Your task to perform on an android device: make emails show in primary in the gmail app Image 0: 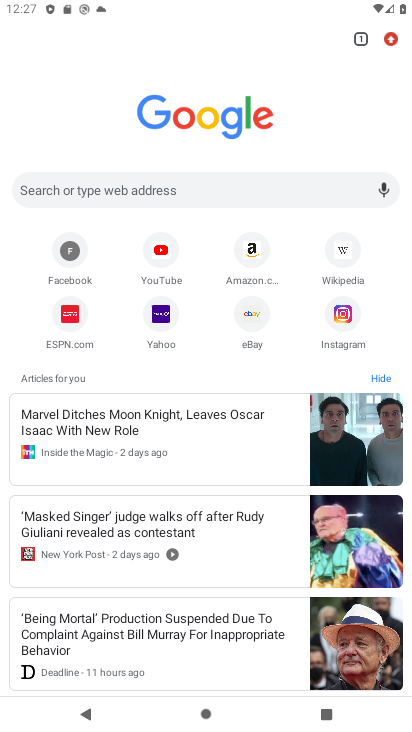
Step 0: press home button
Your task to perform on an android device: make emails show in primary in the gmail app Image 1: 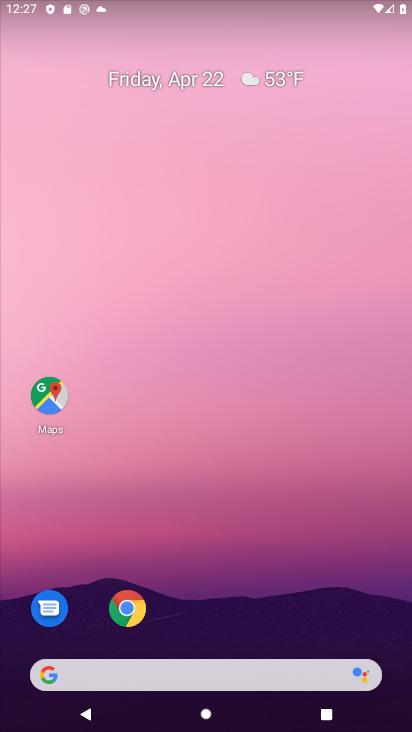
Step 1: drag from (293, 586) to (225, 123)
Your task to perform on an android device: make emails show in primary in the gmail app Image 2: 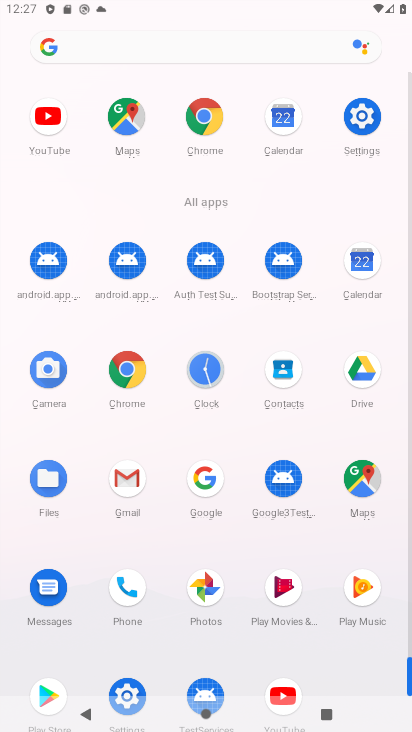
Step 2: click (128, 475)
Your task to perform on an android device: make emails show in primary in the gmail app Image 3: 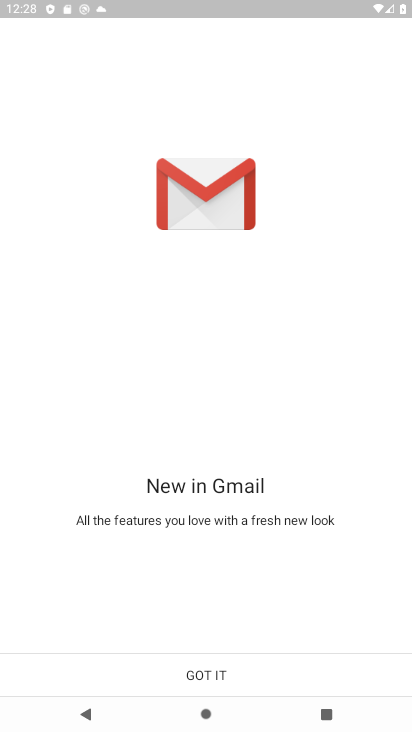
Step 3: click (224, 667)
Your task to perform on an android device: make emails show in primary in the gmail app Image 4: 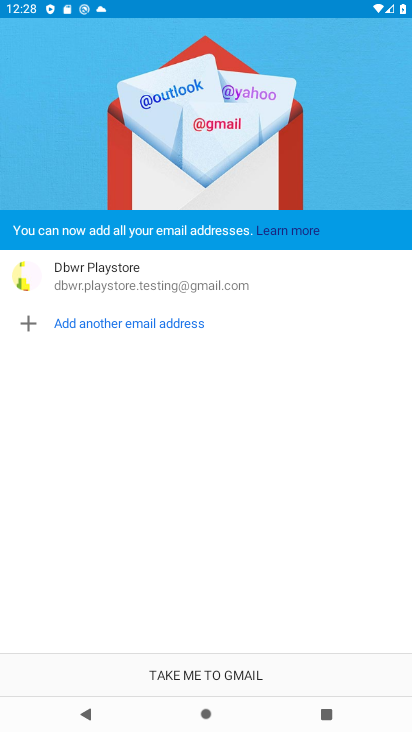
Step 4: click (227, 669)
Your task to perform on an android device: make emails show in primary in the gmail app Image 5: 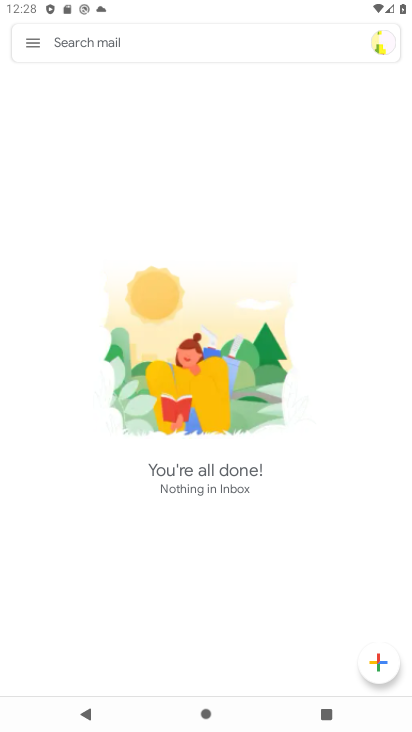
Step 5: click (37, 40)
Your task to perform on an android device: make emails show in primary in the gmail app Image 6: 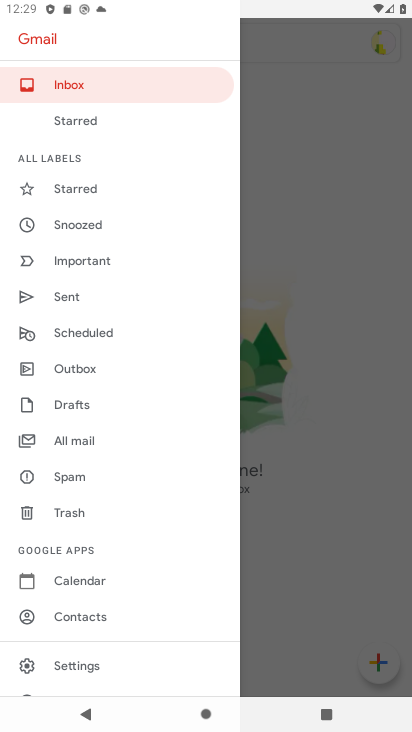
Step 6: click (78, 661)
Your task to perform on an android device: make emails show in primary in the gmail app Image 7: 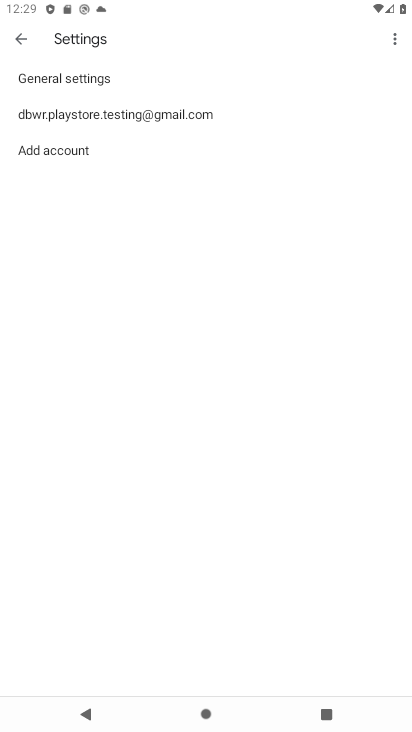
Step 7: click (83, 108)
Your task to perform on an android device: make emails show in primary in the gmail app Image 8: 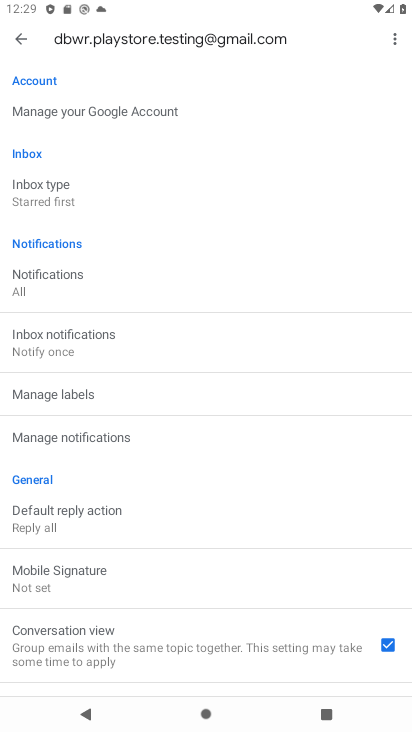
Step 8: click (55, 182)
Your task to perform on an android device: make emails show in primary in the gmail app Image 9: 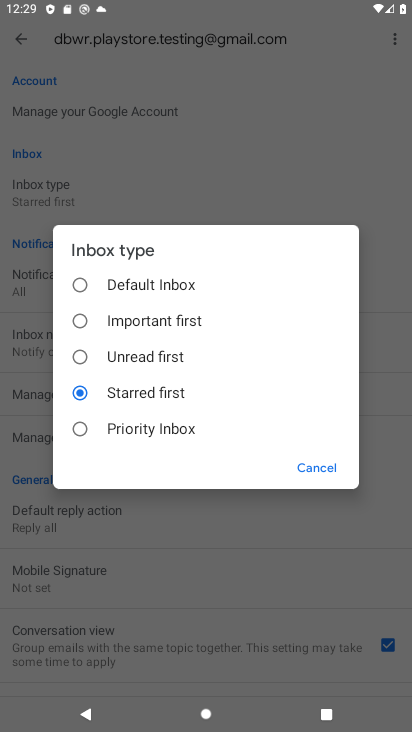
Step 9: click (124, 291)
Your task to perform on an android device: make emails show in primary in the gmail app Image 10: 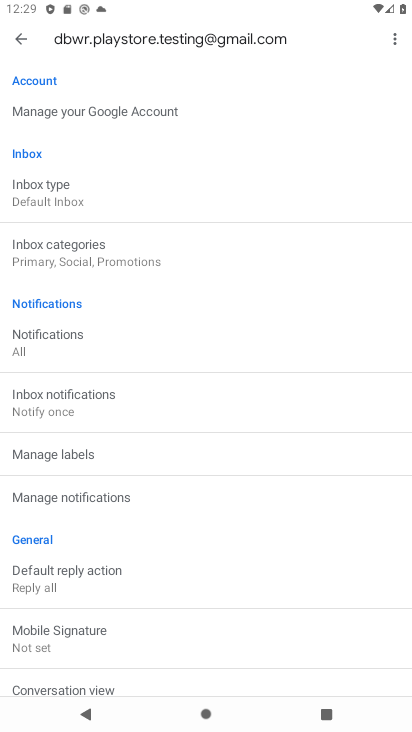
Step 10: click (75, 271)
Your task to perform on an android device: make emails show in primary in the gmail app Image 11: 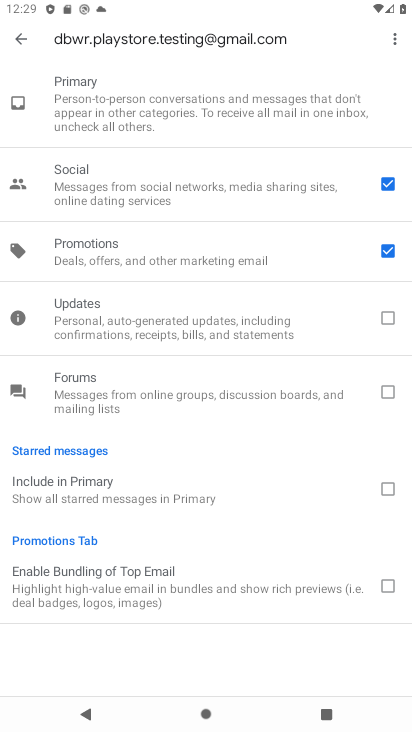
Step 11: click (192, 253)
Your task to perform on an android device: make emails show in primary in the gmail app Image 12: 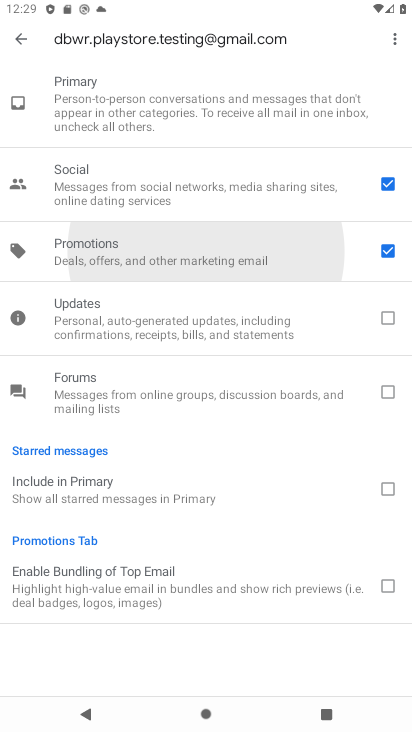
Step 12: click (220, 177)
Your task to perform on an android device: make emails show in primary in the gmail app Image 13: 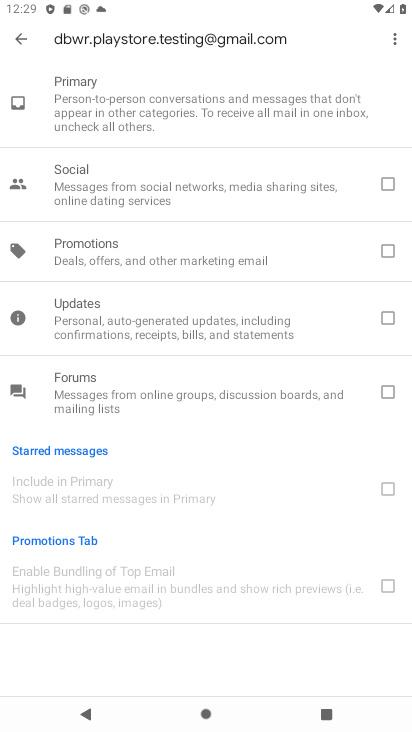
Step 13: click (20, 29)
Your task to perform on an android device: make emails show in primary in the gmail app Image 14: 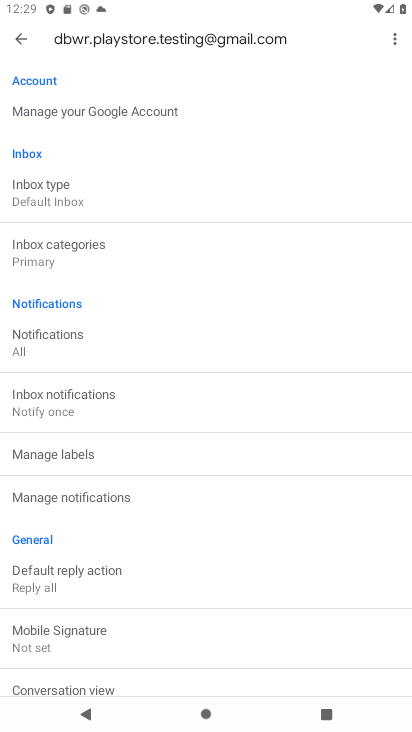
Step 14: task complete